Your task to perform on an android device: See recent photos Image 0: 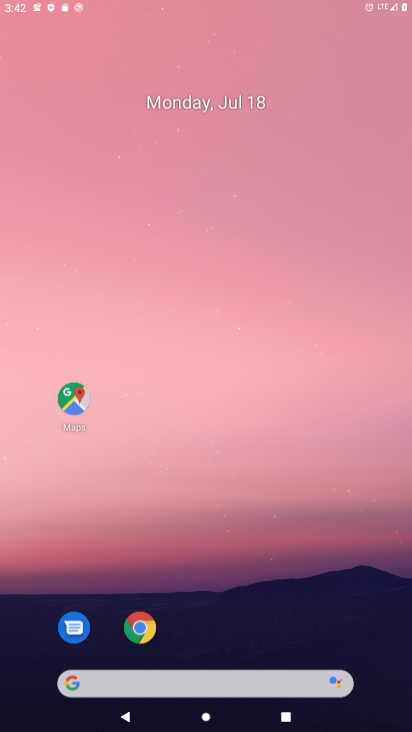
Step 0: drag from (206, 187) to (250, 8)
Your task to perform on an android device: See recent photos Image 1: 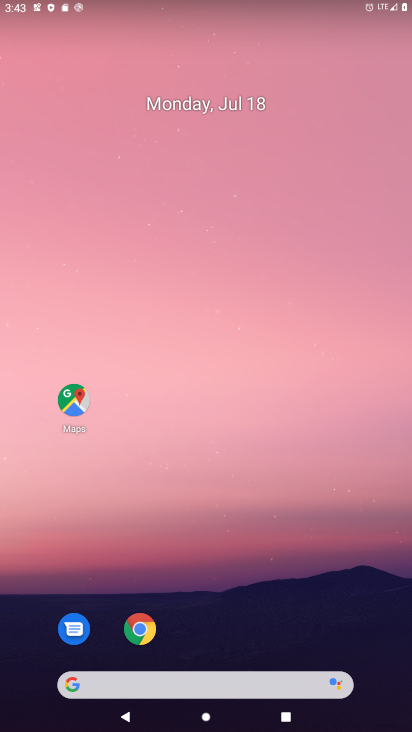
Step 1: drag from (211, 606) to (281, 9)
Your task to perform on an android device: See recent photos Image 2: 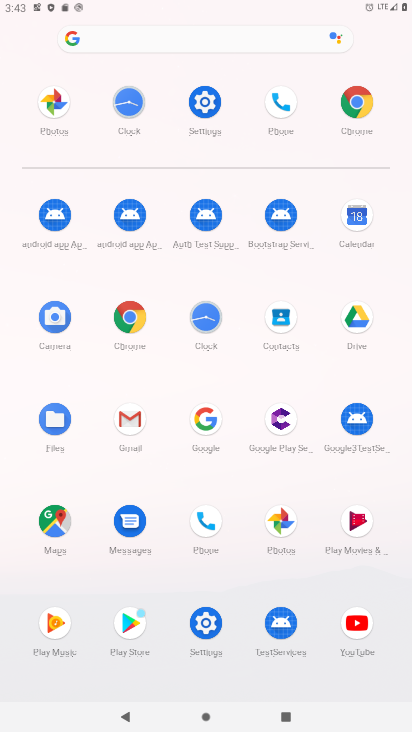
Step 2: click (283, 526)
Your task to perform on an android device: See recent photos Image 3: 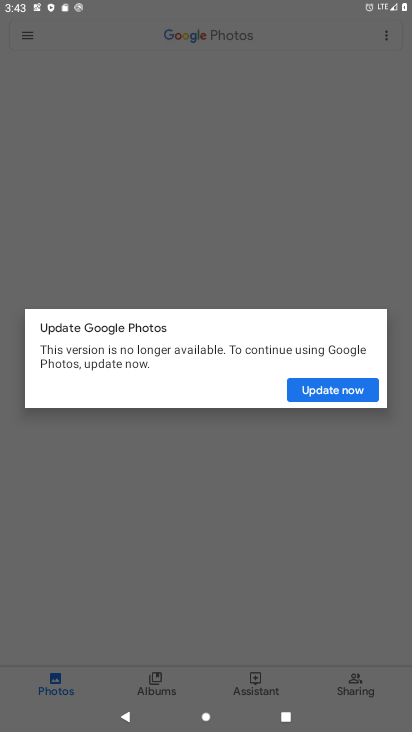
Step 3: click (357, 395)
Your task to perform on an android device: See recent photos Image 4: 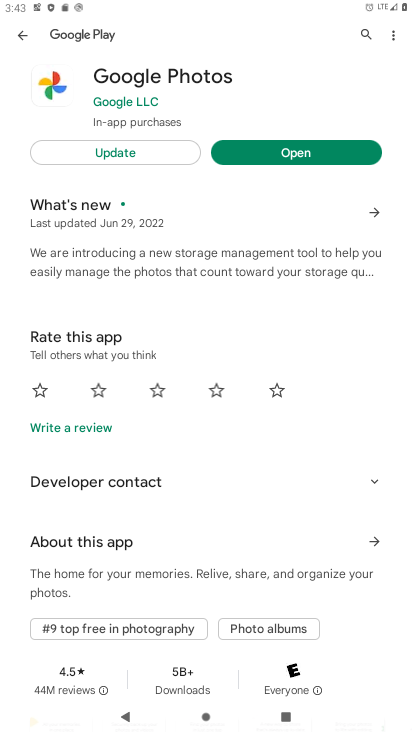
Step 4: click (286, 151)
Your task to perform on an android device: See recent photos Image 5: 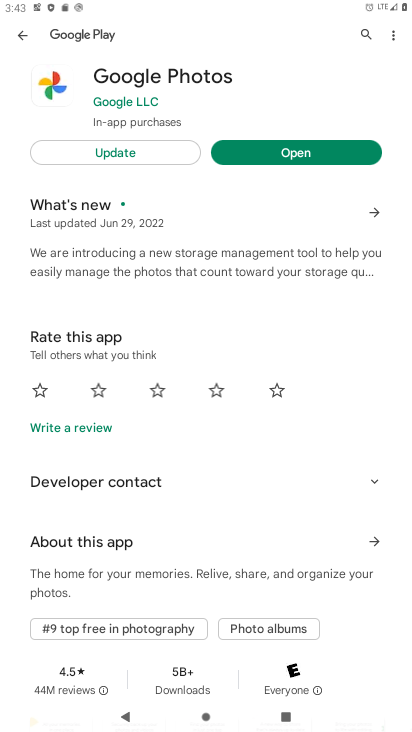
Step 5: click (280, 147)
Your task to perform on an android device: See recent photos Image 6: 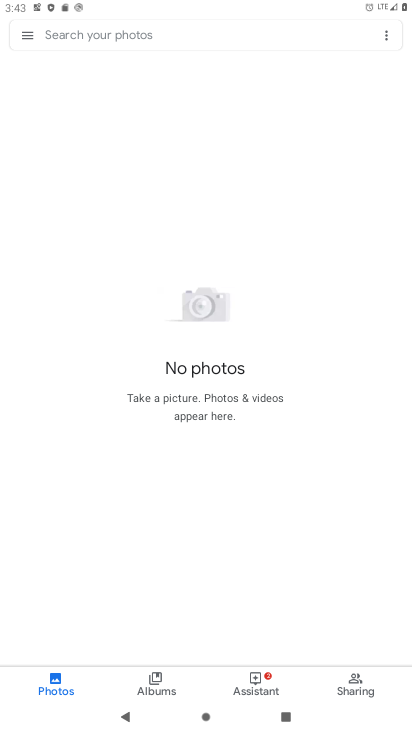
Step 6: task complete